Your task to perform on an android device: View the shopping cart on walmart.com. Search for "macbook pro 15 inch" on walmart.com, select the first entry, add it to the cart, then select checkout. Image 0: 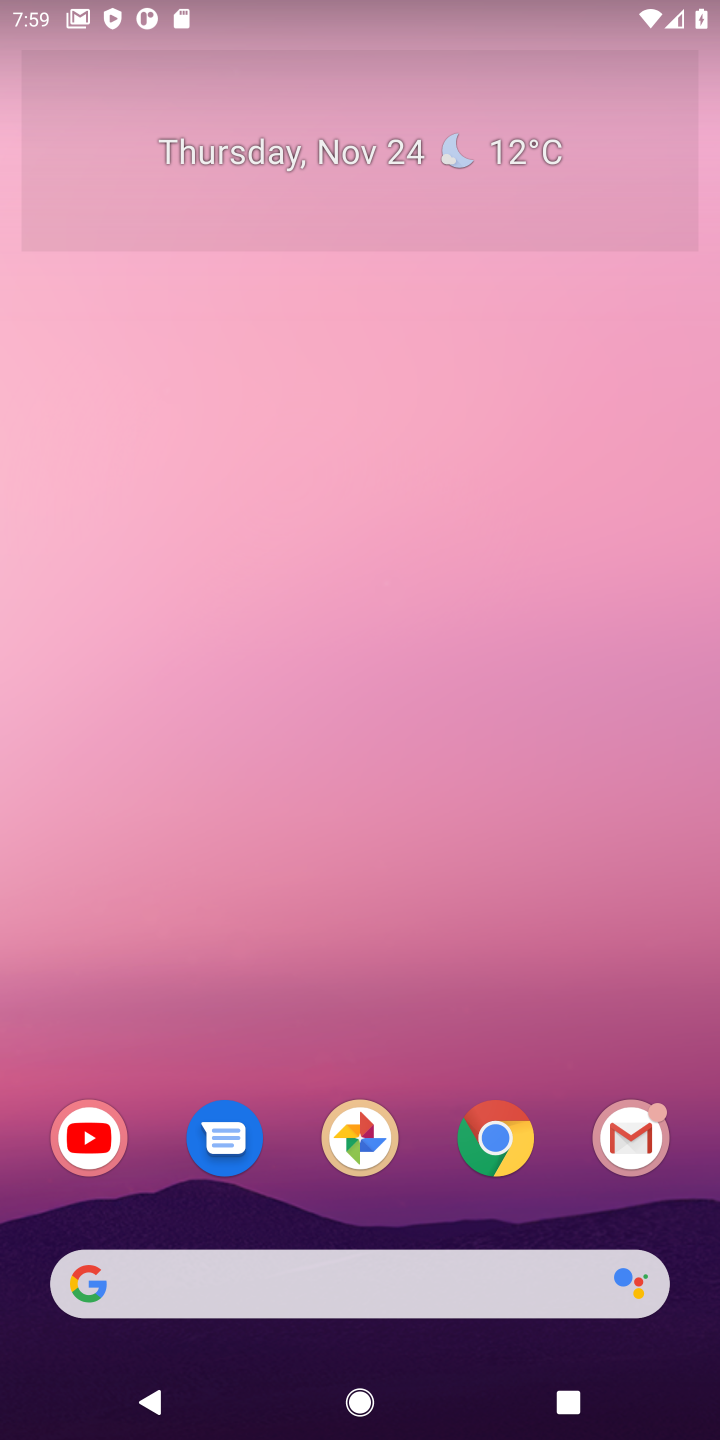
Step 0: click (489, 1139)
Your task to perform on an android device: View the shopping cart on walmart.com. Search for "macbook pro 15 inch" on walmart.com, select the first entry, add it to the cart, then select checkout. Image 1: 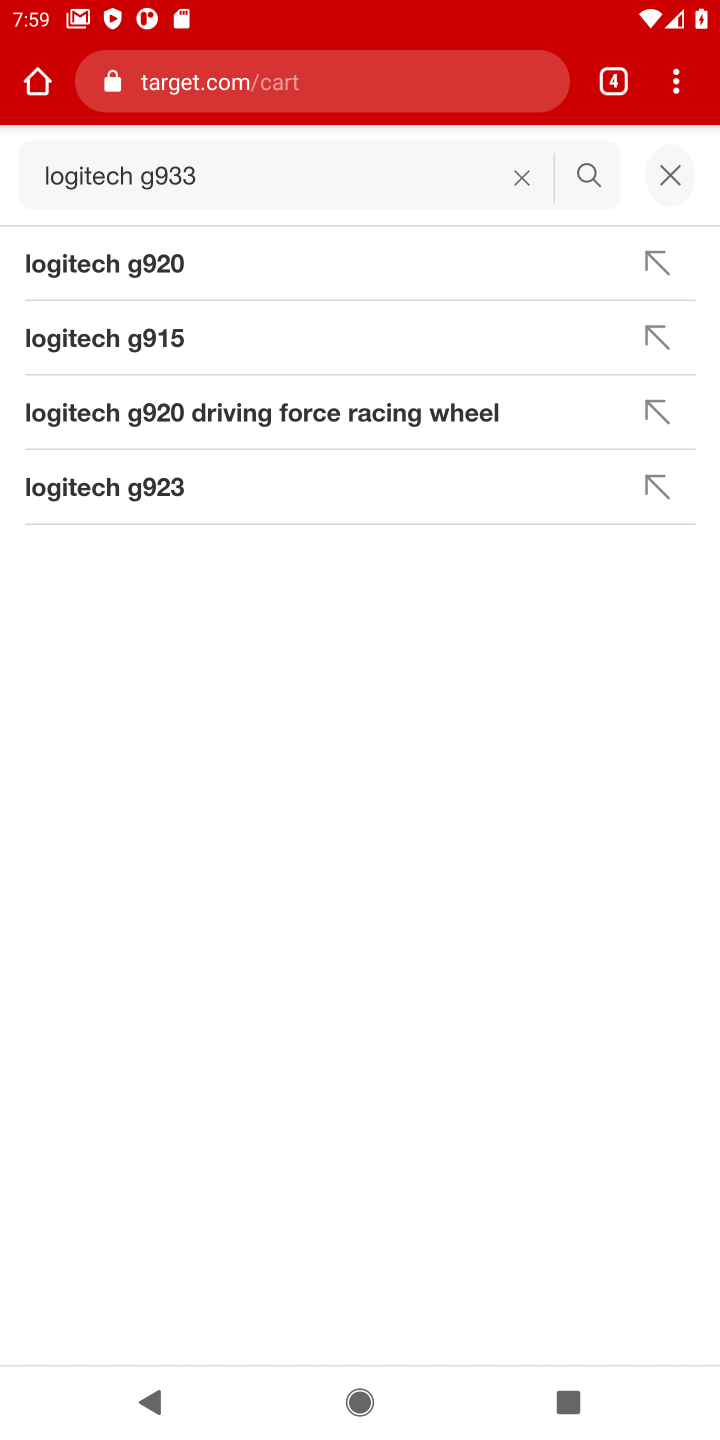
Step 1: click (518, 178)
Your task to perform on an android device: View the shopping cart on walmart.com. Search for "macbook pro 15 inch" on walmart.com, select the first entry, add it to the cart, then select checkout. Image 2: 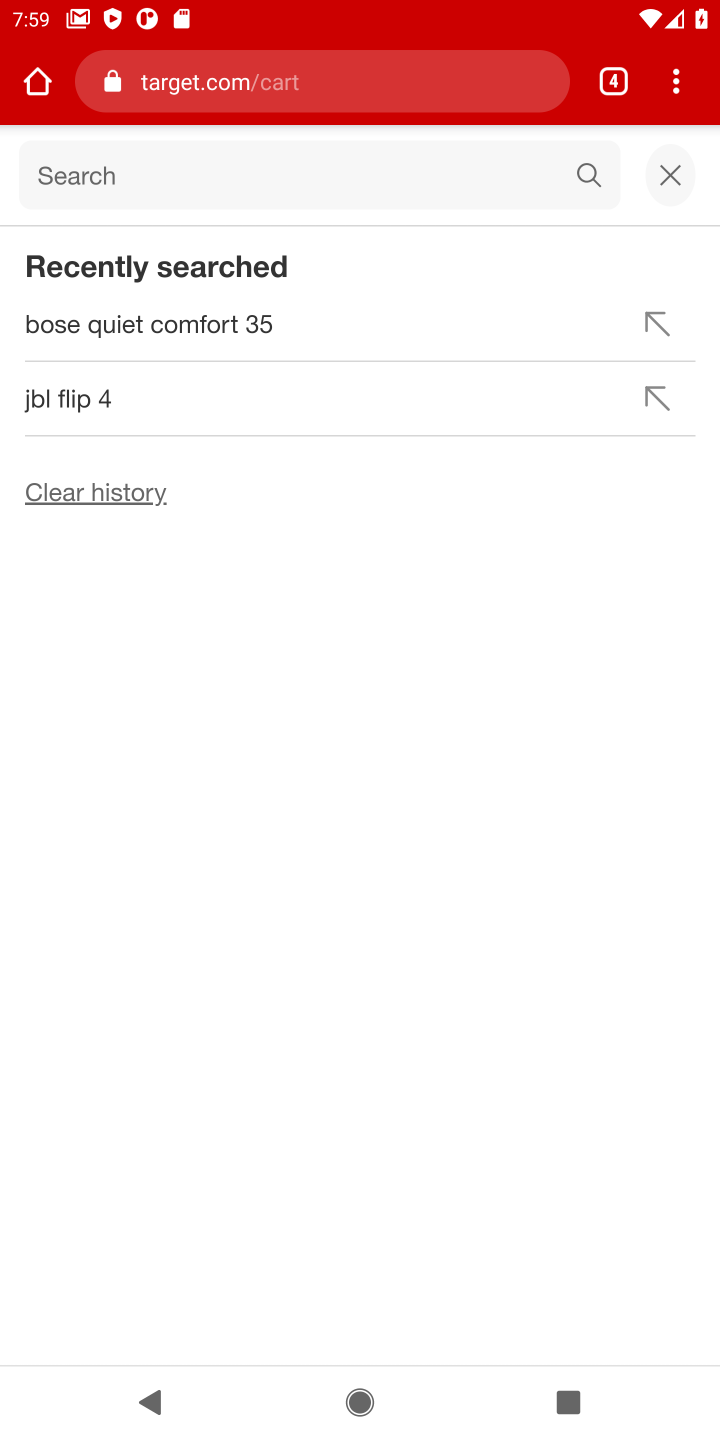
Step 2: click (611, 74)
Your task to perform on an android device: View the shopping cart on walmart.com. Search for "macbook pro 15 inch" on walmart.com, select the first entry, add it to the cart, then select checkout. Image 3: 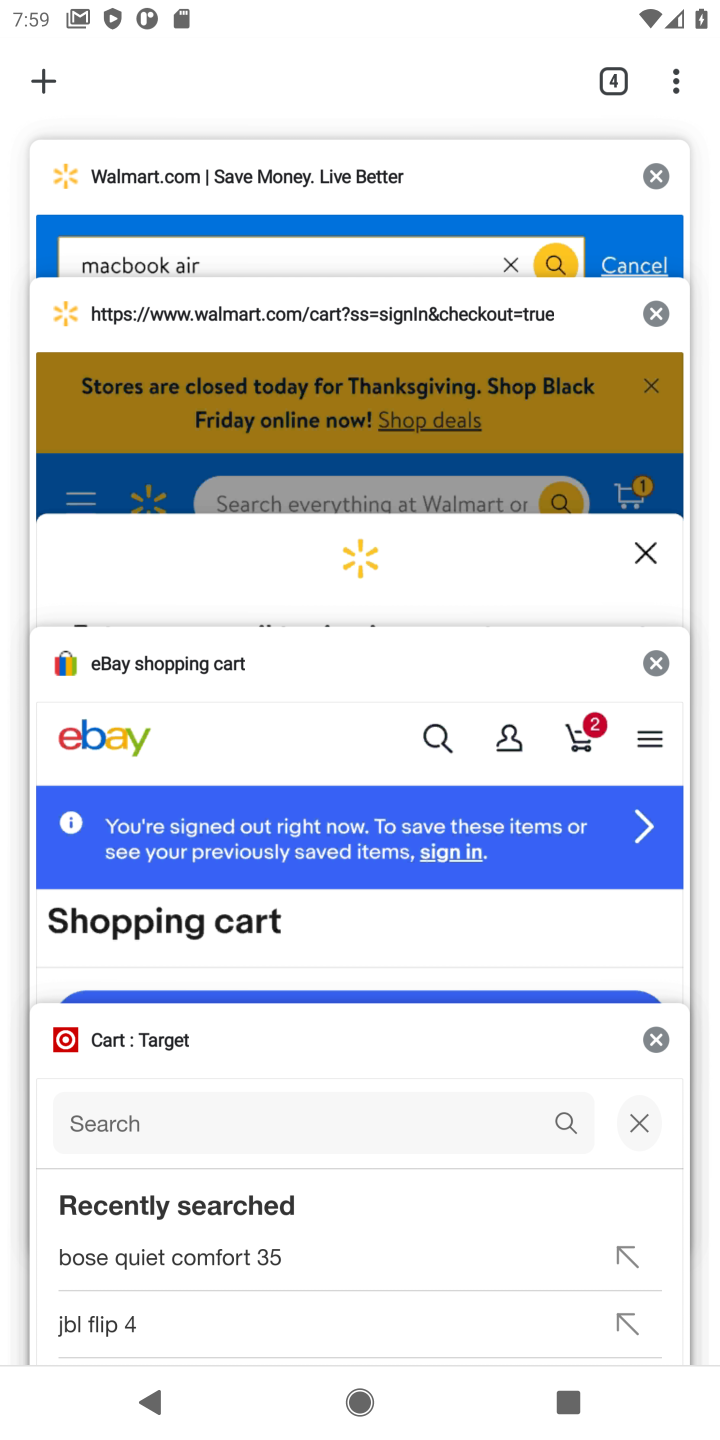
Step 3: click (305, 366)
Your task to perform on an android device: View the shopping cart on walmart.com. Search for "macbook pro 15 inch" on walmart.com, select the first entry, add it to the cart, then select checkout. Image 4: 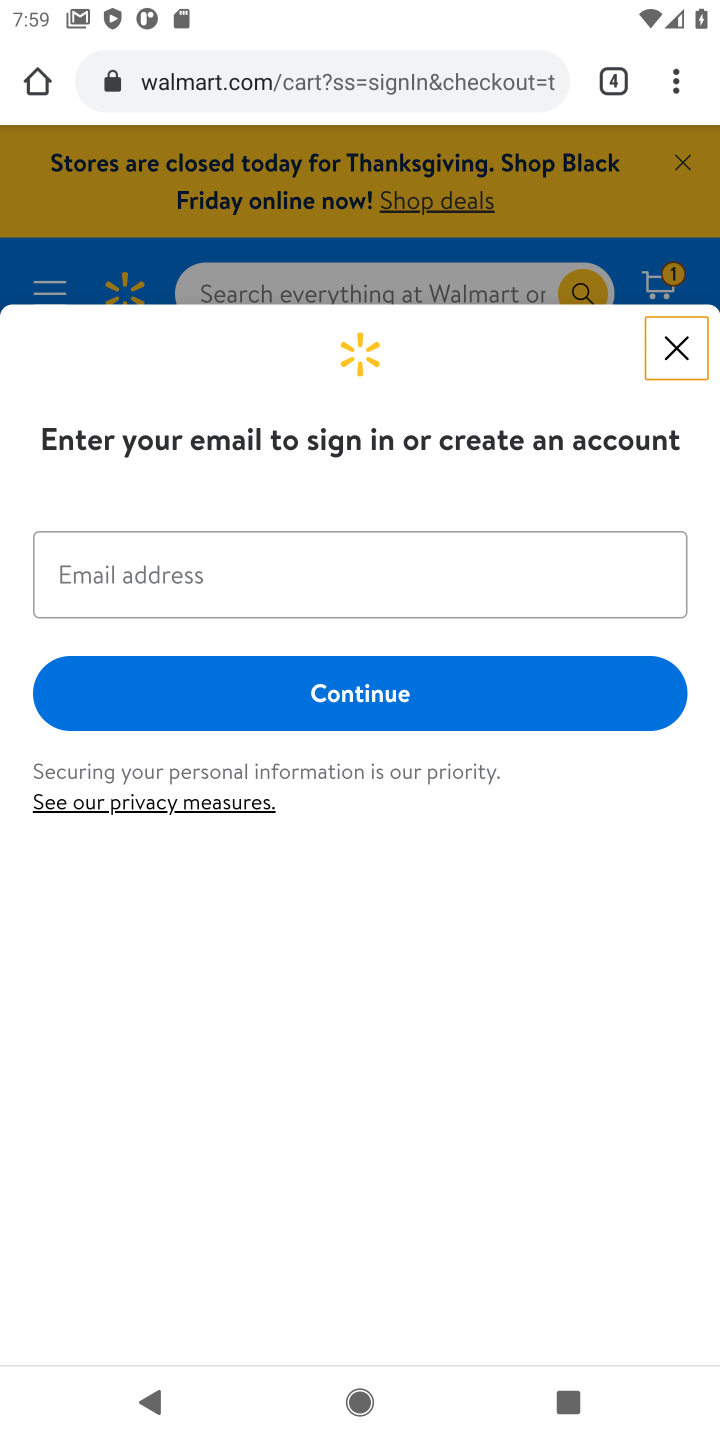
Step 4: click (668, 344)
Your task to perform on an android device: View the shopping cart on walmart.com. Search for "macbook pro 15 inch" on walmart.com, select the first entry, add it to the cart, then select checkout. Image 5: 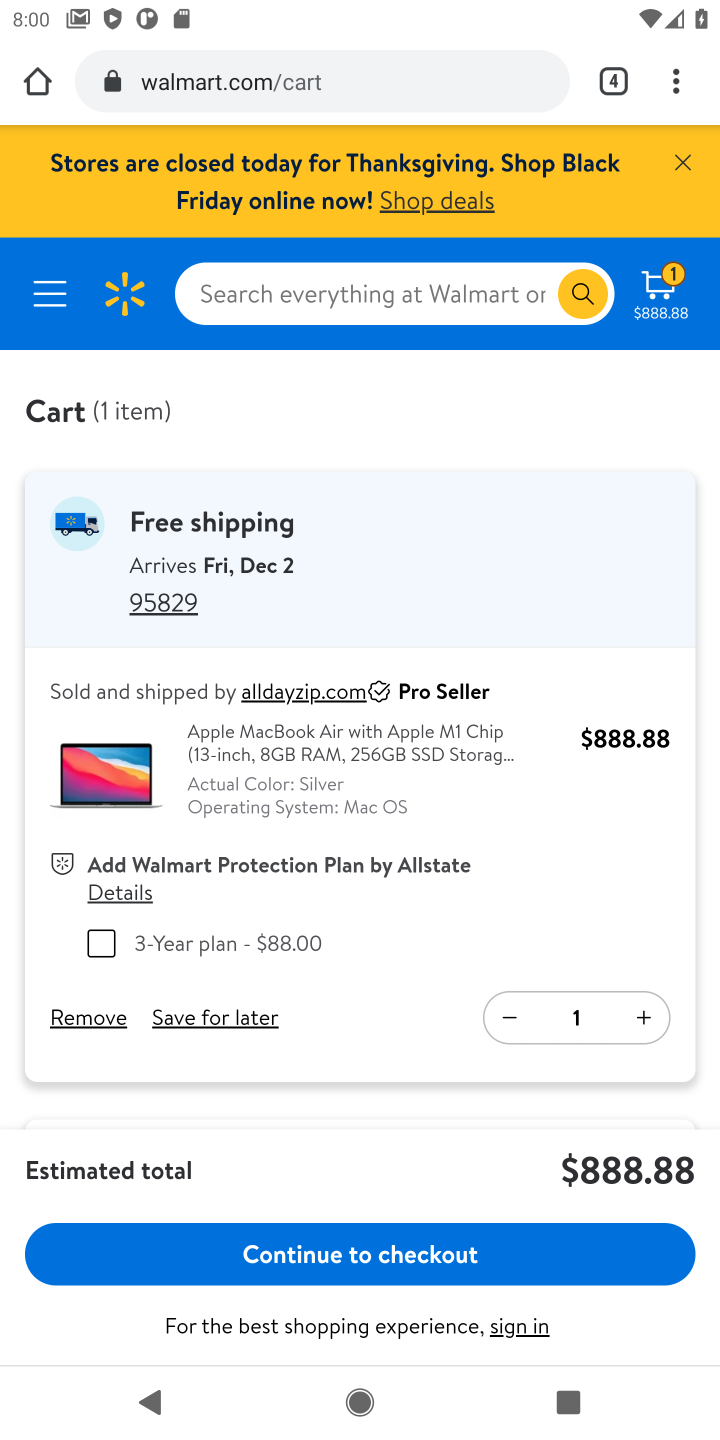
Step 5: click (642, 294)
Your task to perform on an android device: View the shopping cart on walmart.com. Search for "macbook pro 15 inch" on walmart.com, select the first entry, add it to the cart, then select checkout. Image 6: 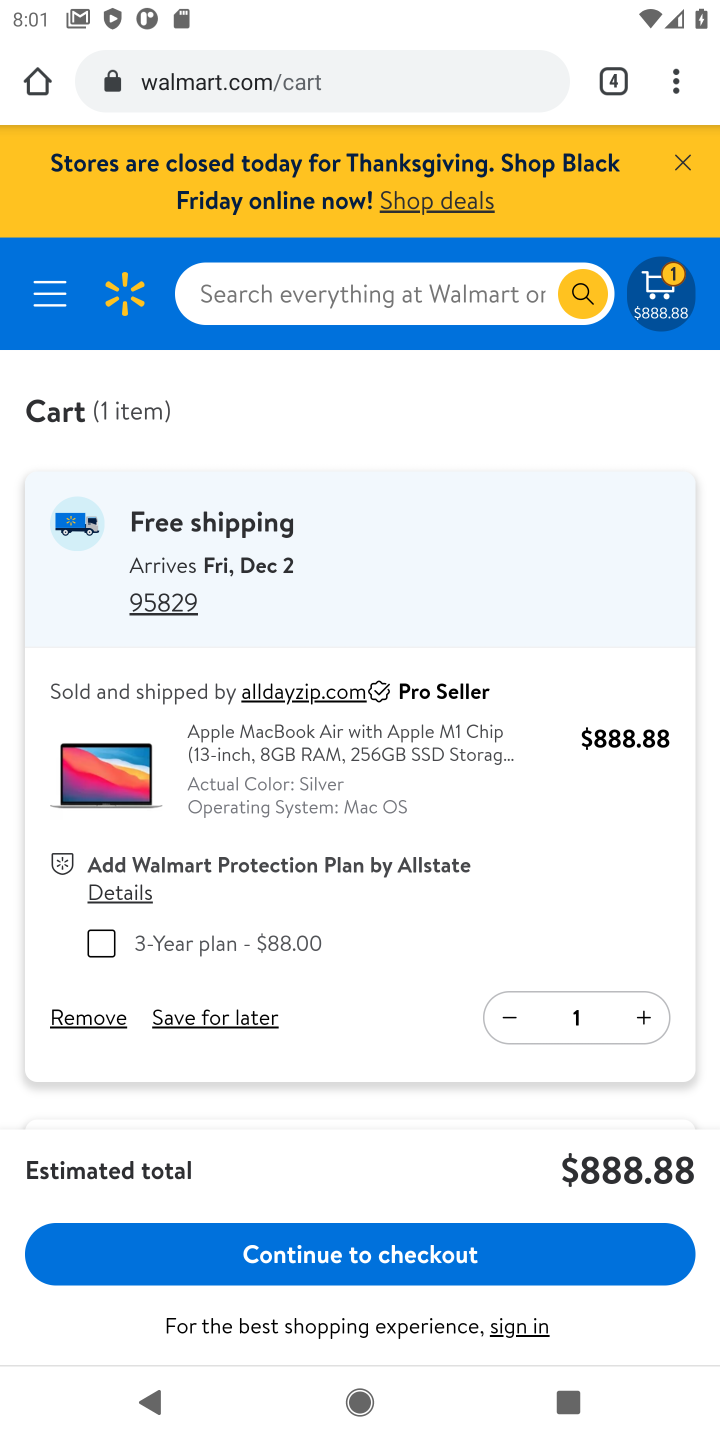
Step 6: click (403, 289)
Your task to perform on an android device: View the shopping cart on walmart.com. Search for "macbook pro 15 inch" on walmart.com, select the first entry, add it to the cart, then select checkout. Image 7: 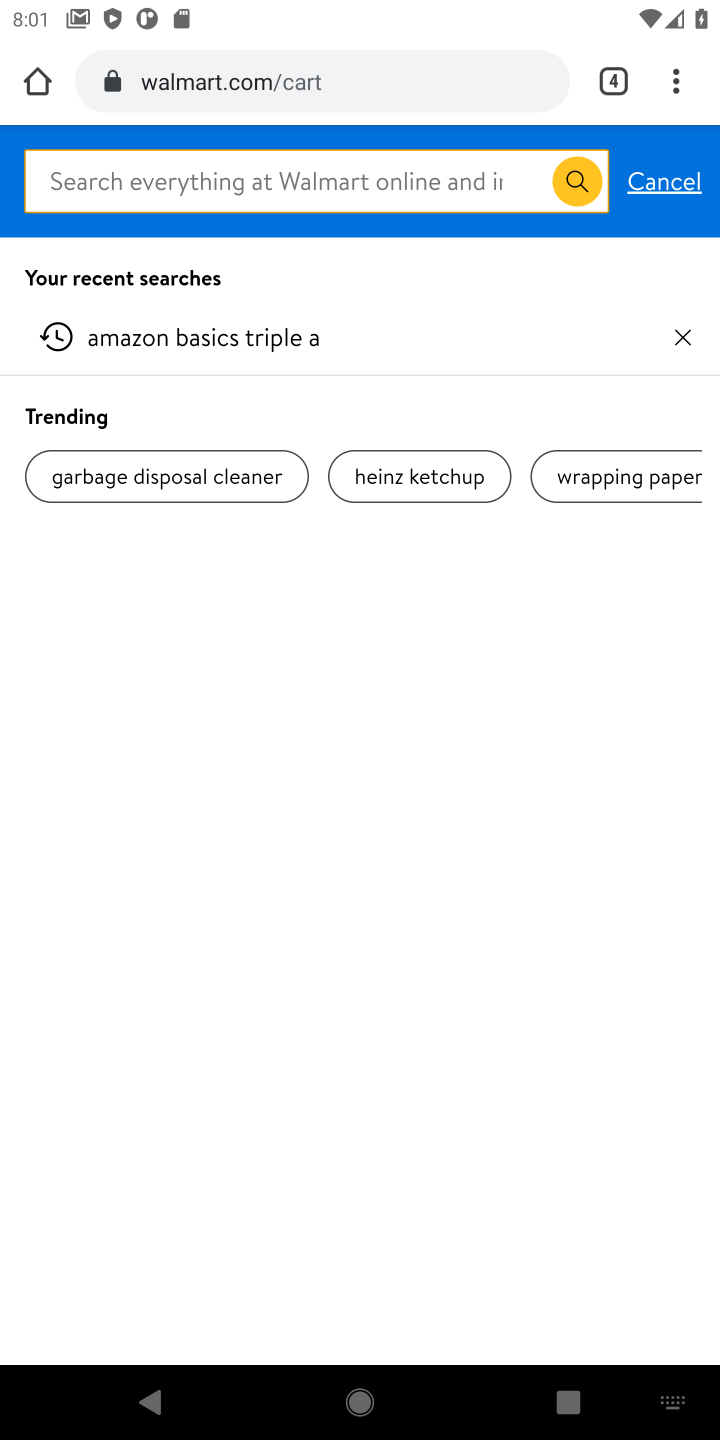
Step 7: click (186, 179)
Your task to perform on an android device: View the shopping cart on walmart.com. Search for "macbook pro 15 inch" on walmart.com, select the first entry, add it to the cart, then select checkout. Image 8: 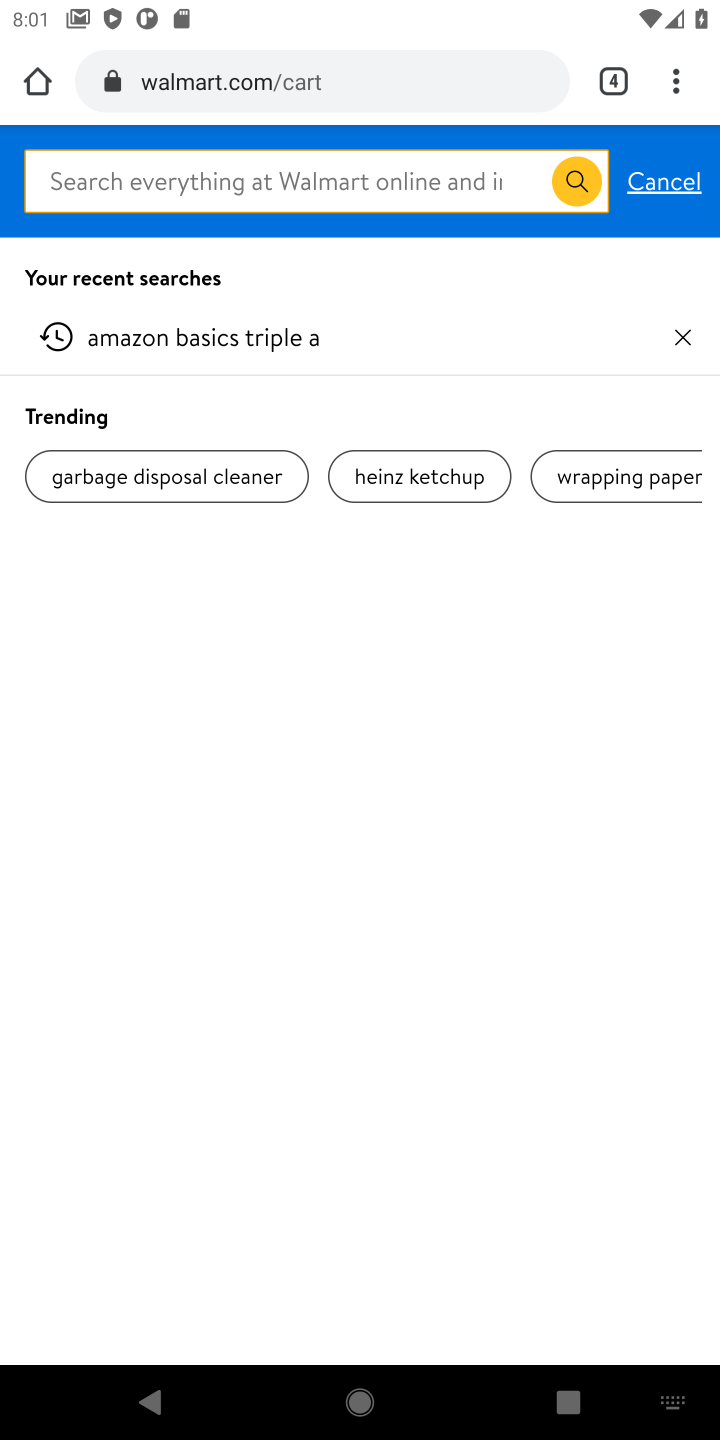
Step 8: type "macbook pro 15"
Your task to perform on an android device: View the shopping cart on walmart.com. Search for "macbook pro 15 inch" on walmart.com, select the first entry, add it to the cart, then select checkout. Image 9: 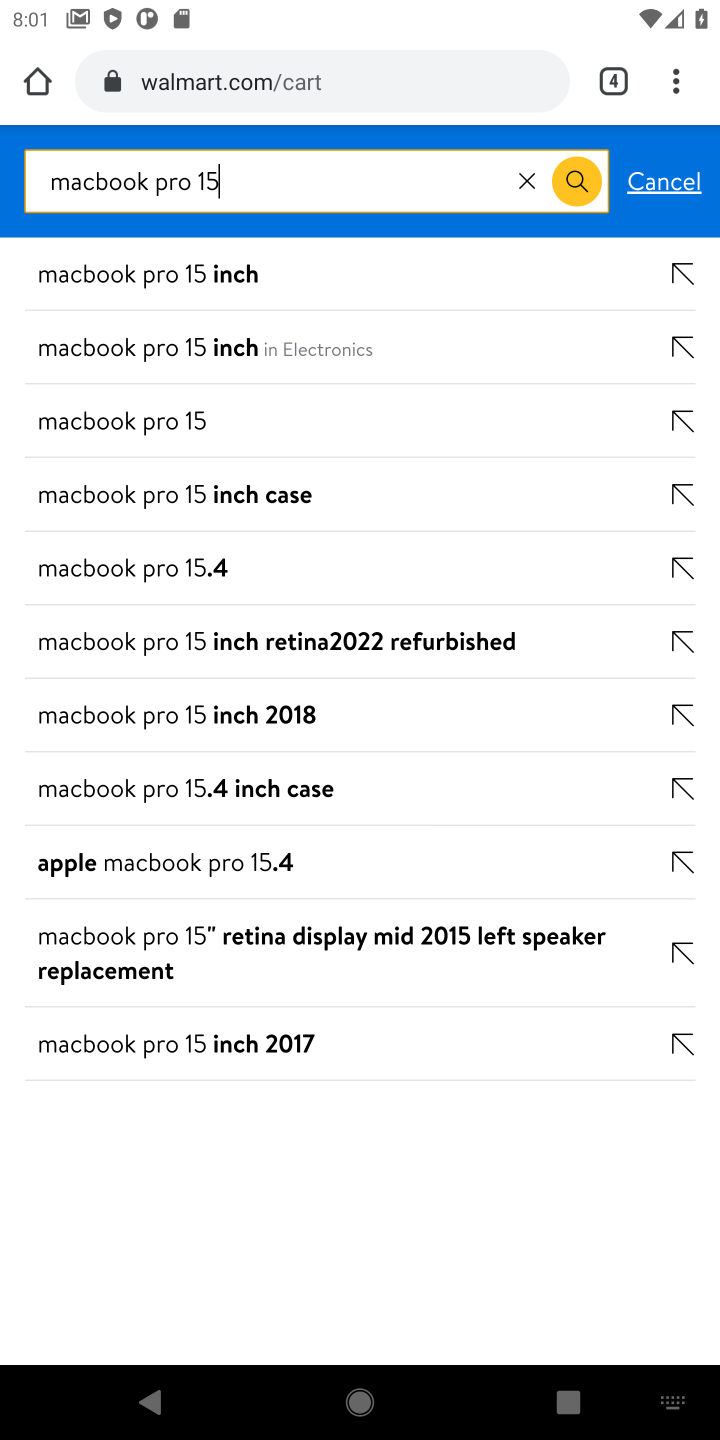
Step 9: click (230, 270)
Your task to perform on an android device: View the shopping cart on walmart.com. Search for "macbook pro 15 inch" on walmart.com, select the first entry, add it to the cart, then select checkout. Image 10: 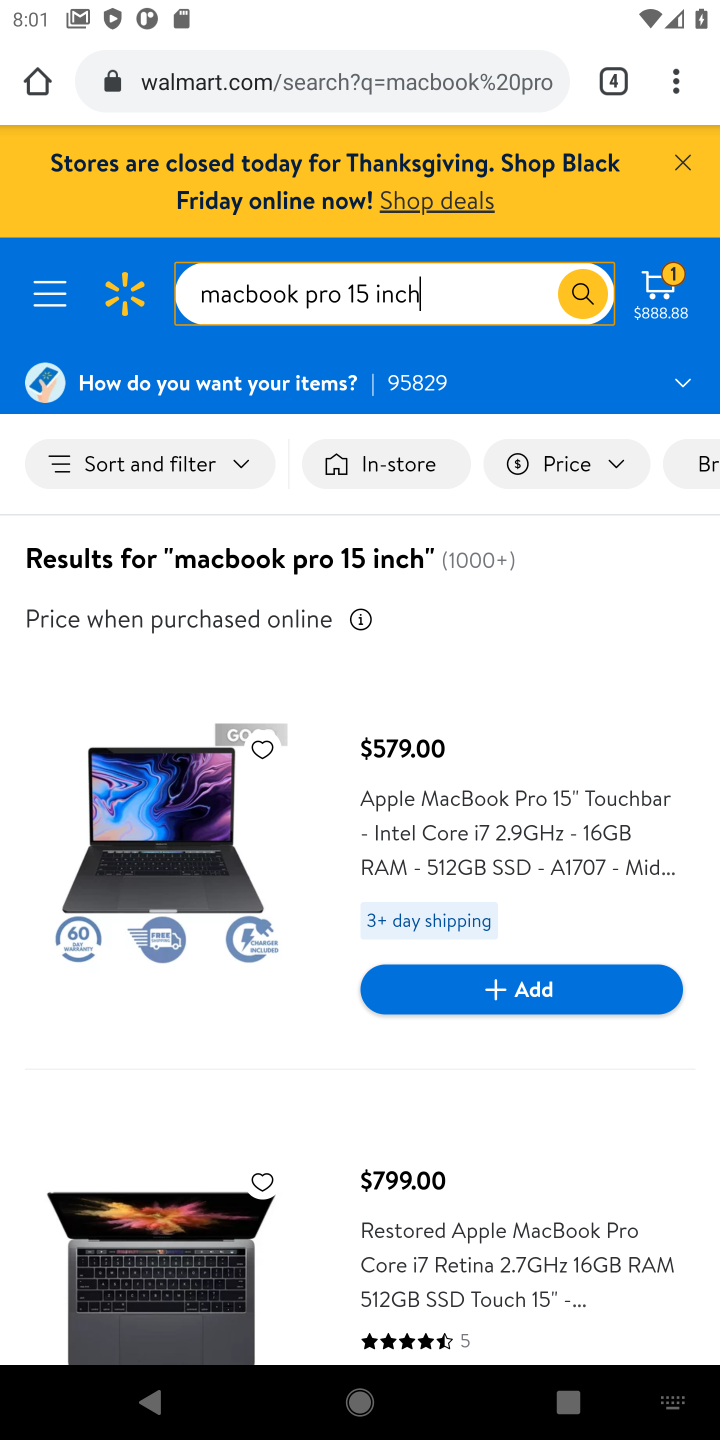
Step 10: click (466, 995)
Your task to perform on an android device: View the shopping cart on walmart.com. Search for "macbook pro 15 inch" on walmart.com, select the first entry, add it to the cart, then select checkout. Image 11: 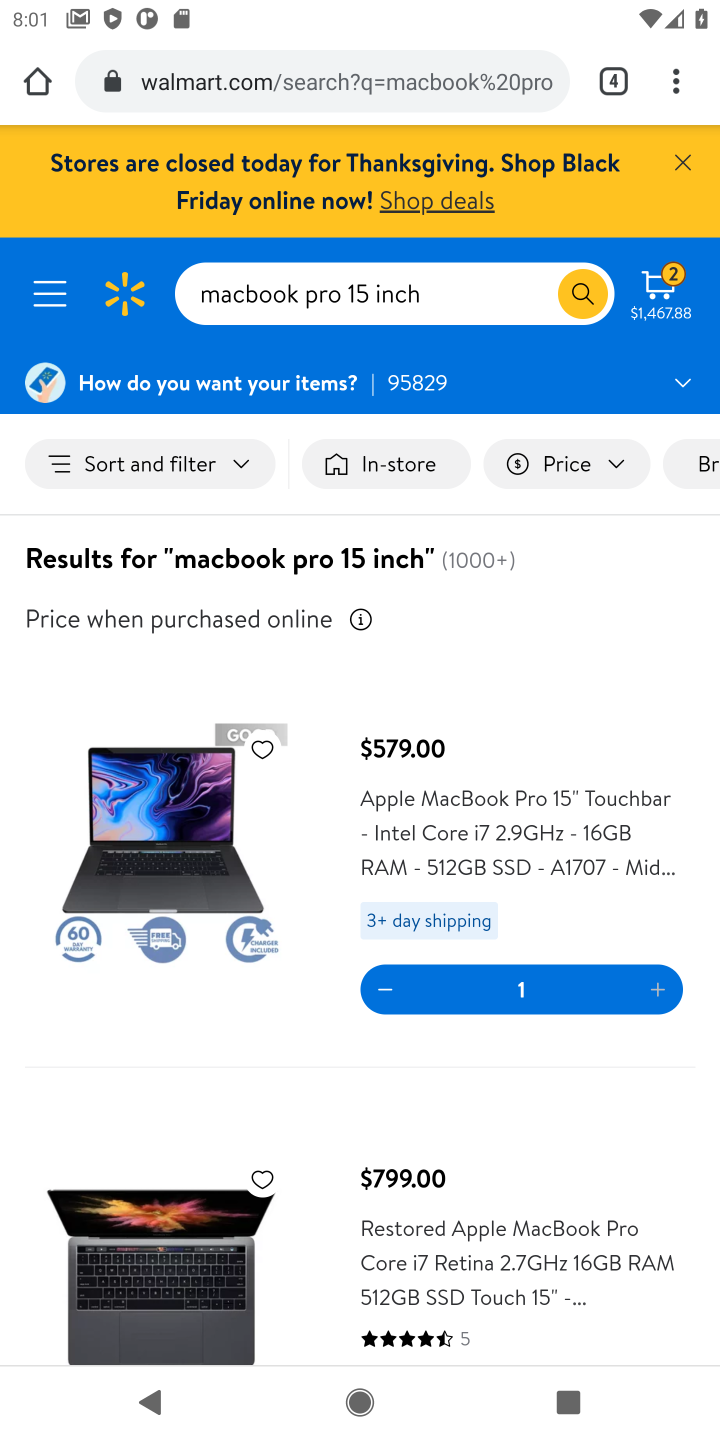
Step 11: click (437, 801)
Your task to perform on an android device: View the shopping cart on walmart.com. Search for "macbook pro 15 inch" on walmart.com, select the first entry, add it to the cart, then select checkout. Image 12: 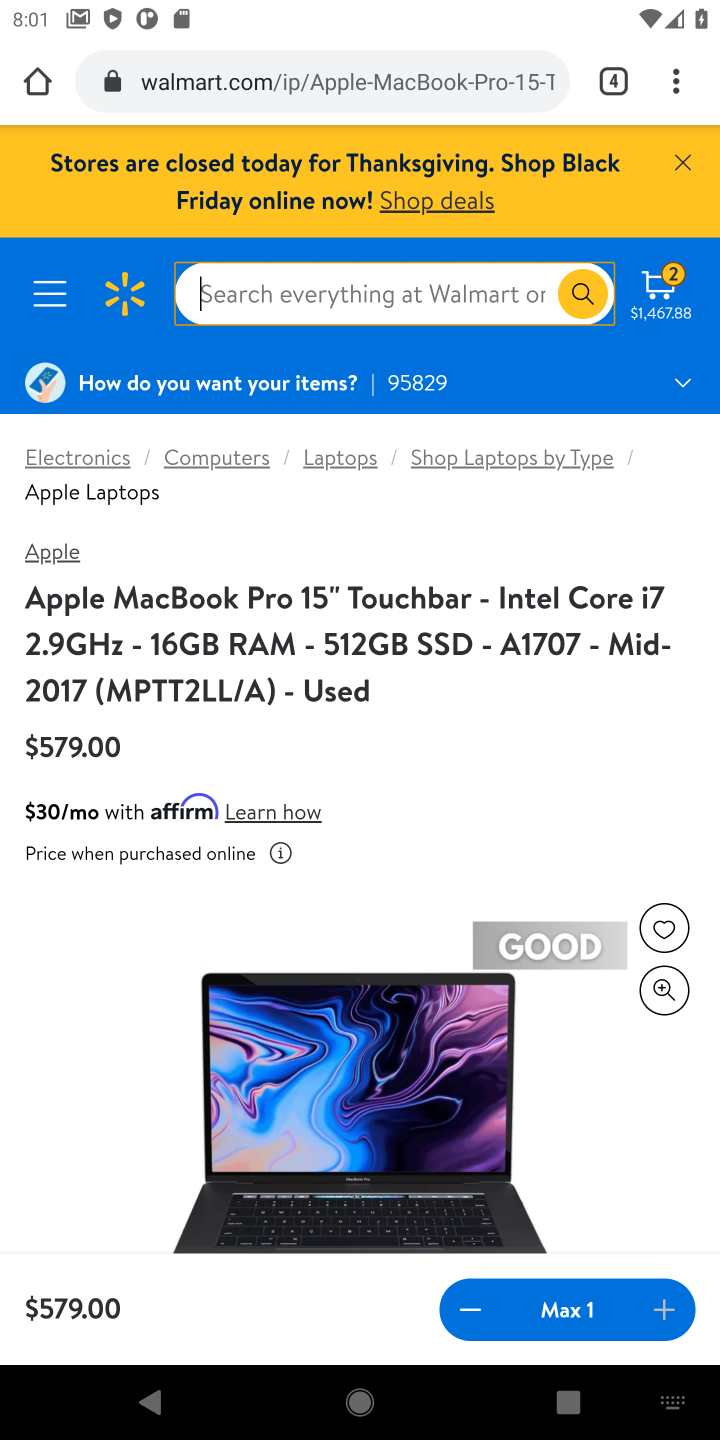
Step 12: drag from (502, 1098) to (575, 196)
Your task to perform on an android device: View the shopping cart on walmart.com. Search for "macbook pro 15 inch" on walmart.com, select the first entry, add it to the cart, then select checkout. Image 13: 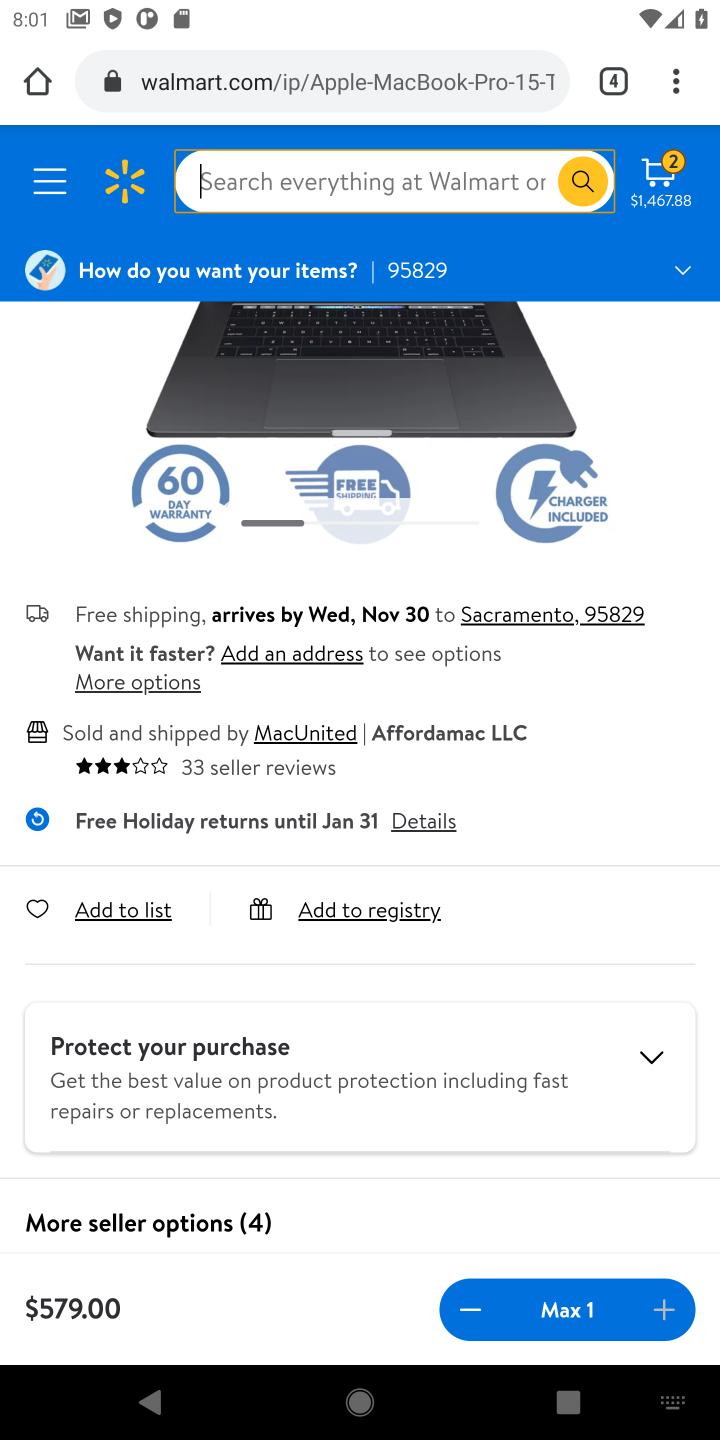
Step 13: drag from (377, 1060) to (386, 387)
Your task to perform on an android device: View the shopping cart on walmart.com. Search for "macbook pro 15 inch" on walmart.com, select the first entry, add it to the cart, then select checkout. Image 14: 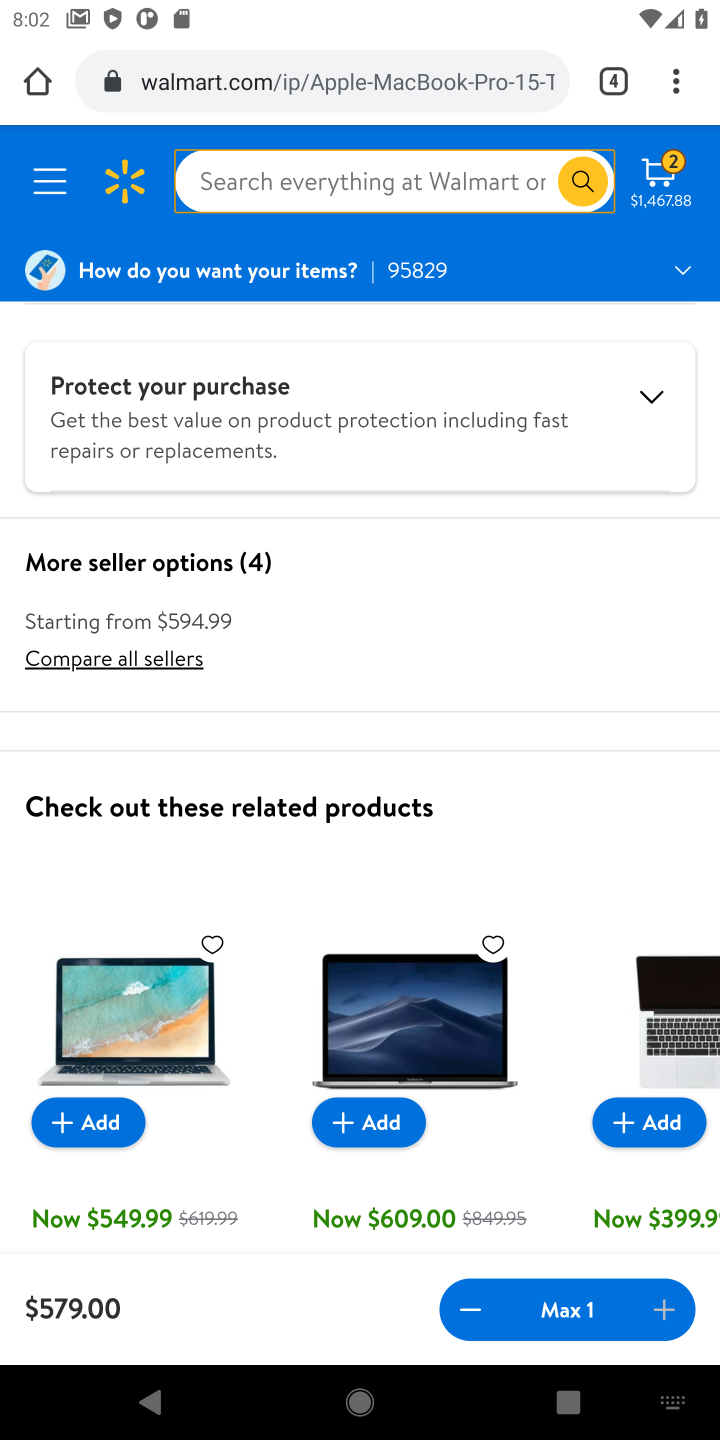
Step 14: drag from (304, 1080) to (350, 678)
Your task to perform on an android device: View the shopping cart on walmart.com. Search for "macbook pro 15 inch" on walmart.com, select the first entry, add it to the cart, then select checkout. Image 15: 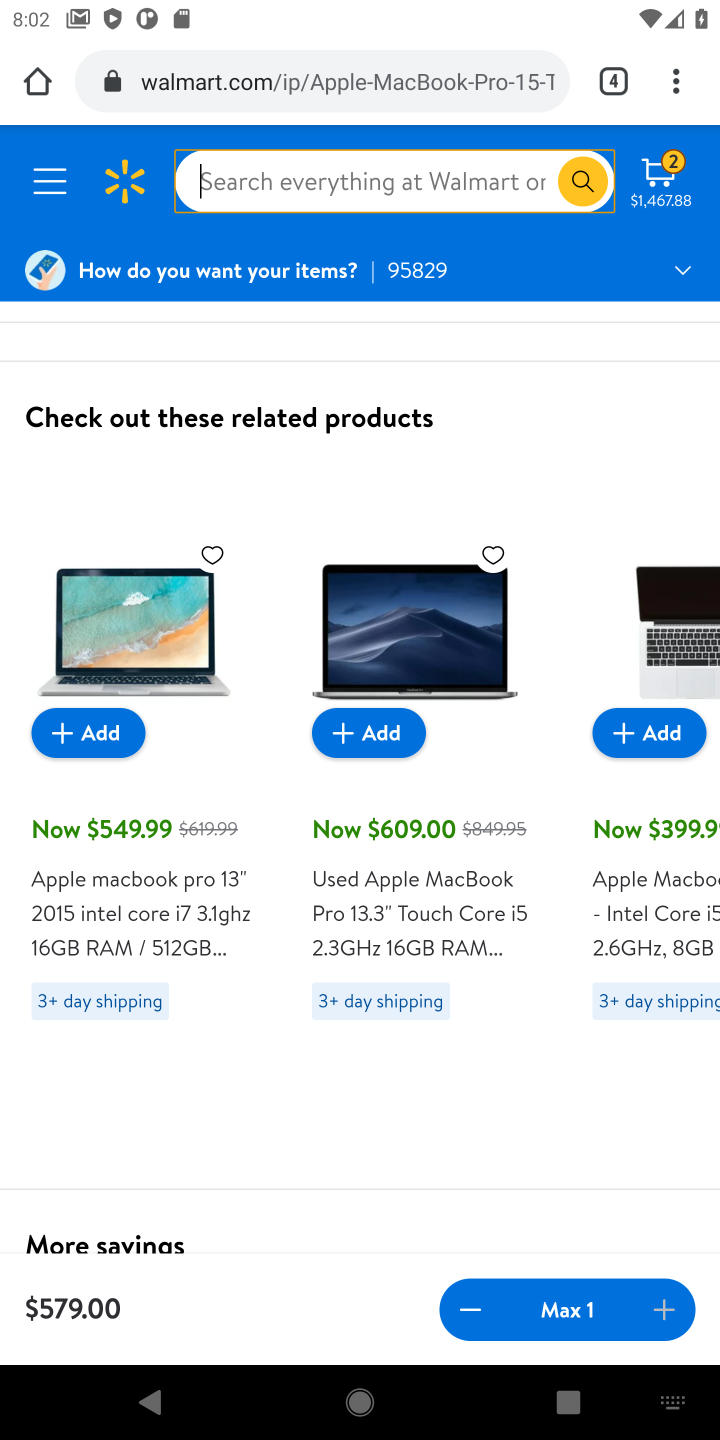
Step 15: drag from (134, 917) to (205, 318)
Your task to perform on an android device: View the shopping cart on walmart.com. Search for "macbook pro 15 inch" on walmart.com, select the first entry, add it to the cart, then select checkout. Image 16: 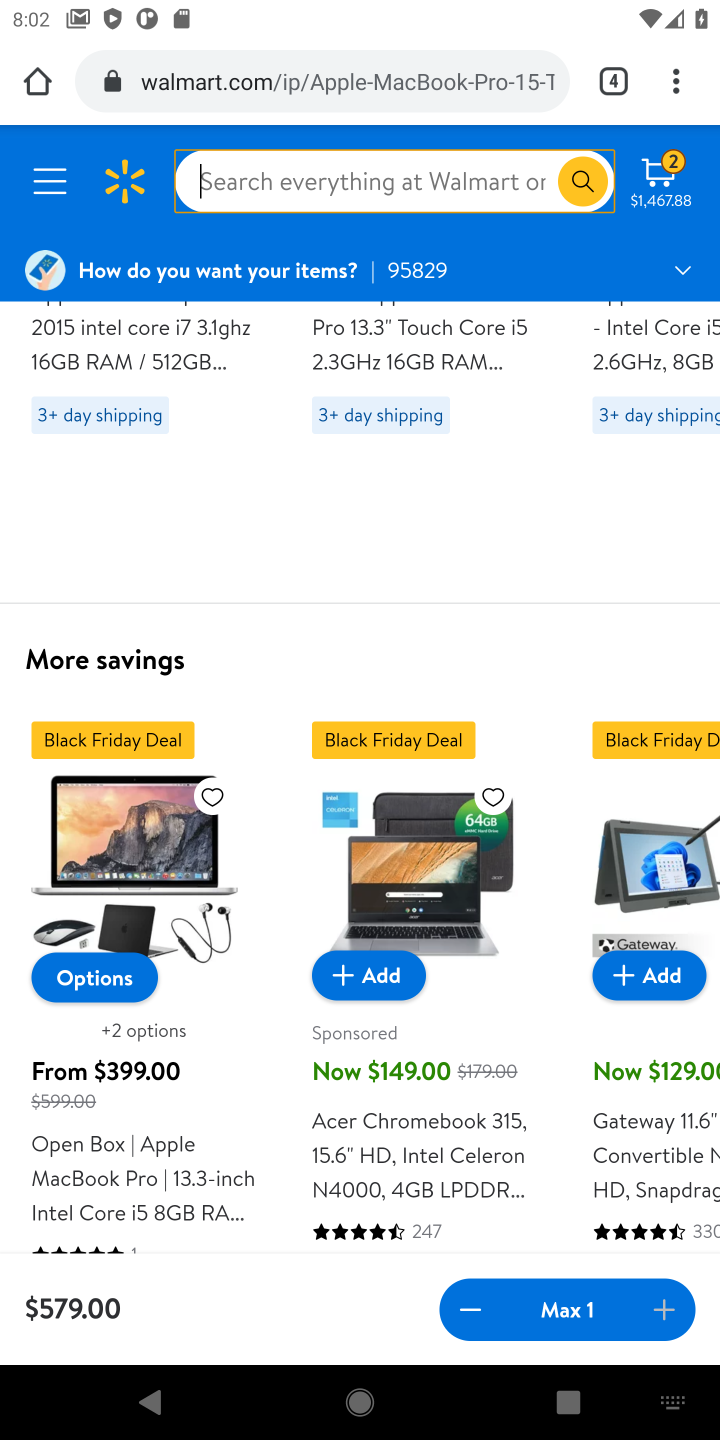
Step 16: click (675, 155)
Your task to perform on an android device: View the shopping cart on walmart.com. Search for "macbook pro 15 inch" on walmart.com, select the first entry, add it to the cart, then select checkout. Image 17: 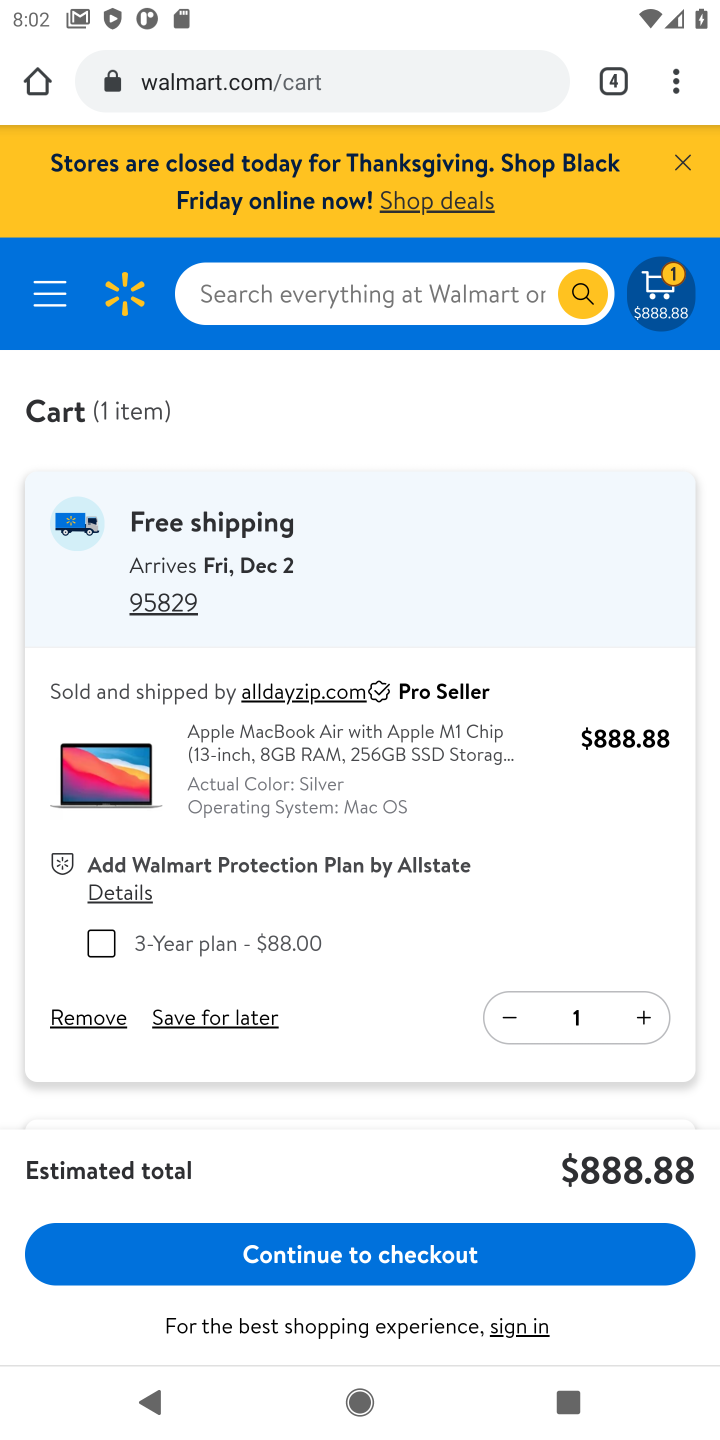
Step 17: click (363, 1251)
Your task to perform on an android device: View the shopping cart on walmart.com. Search for "macbook pro 15 inch" on walmart.com, select the first entry, add it to the cart, then select checkout. Image 18: 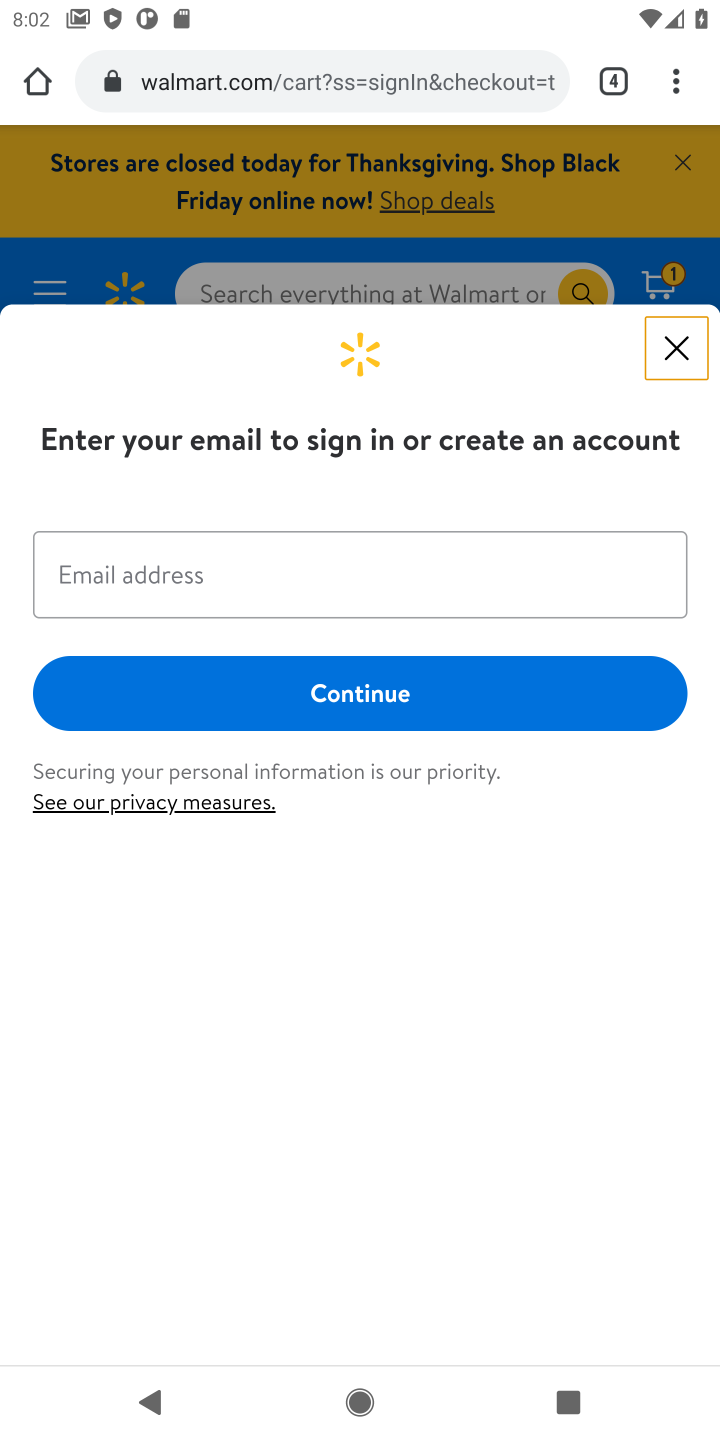
Step 18: click (670, 356)
Your task to perform on an android device: View the shopping cart on walmart.com. Search for "macbook pro 15 inch" on walmart.com, select the first entry, add it to the cart, then select checkout. Image 19: 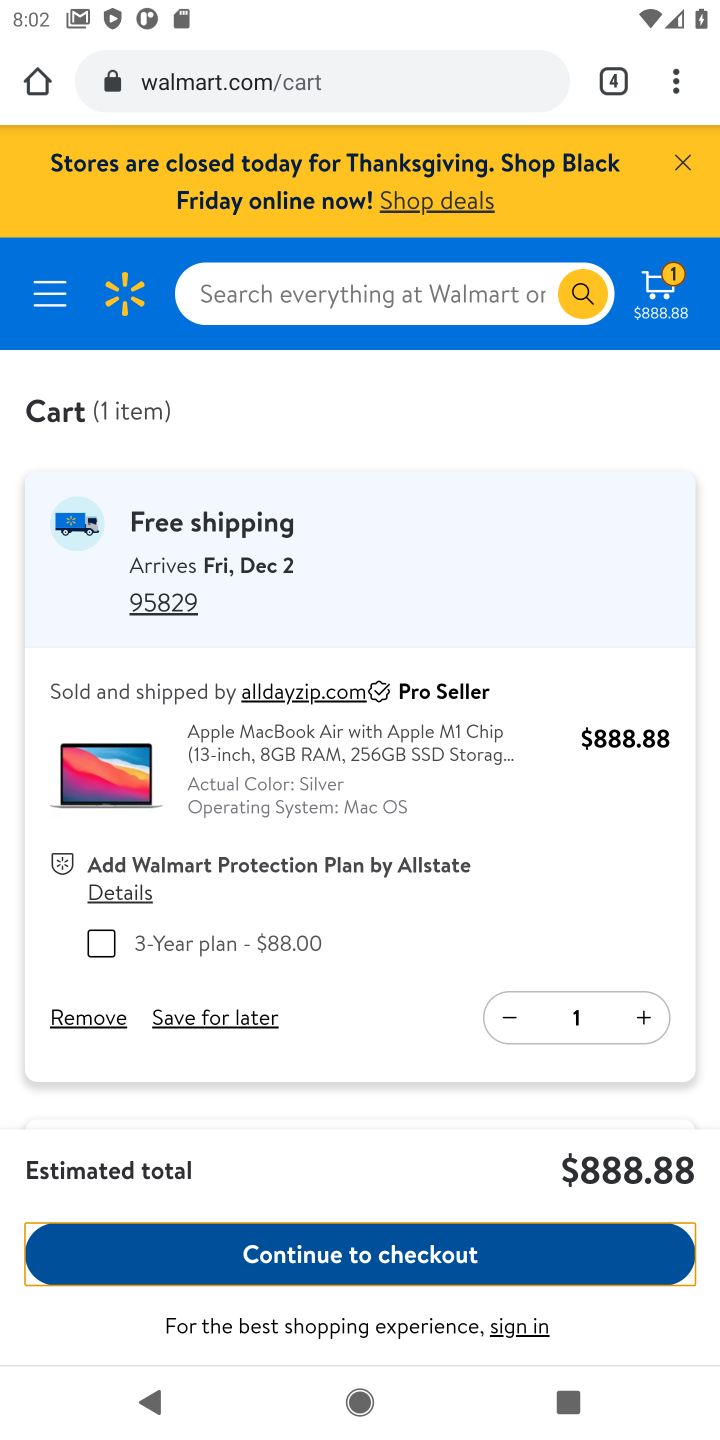
Step 19: click (243, 1245)
Your task to perform on an android device: View the shopping cart on walmart.com. Search for "macbook pro 15 inch" on walmart.com, select the first entry, add it to the cart, then select checkout. Image 20: 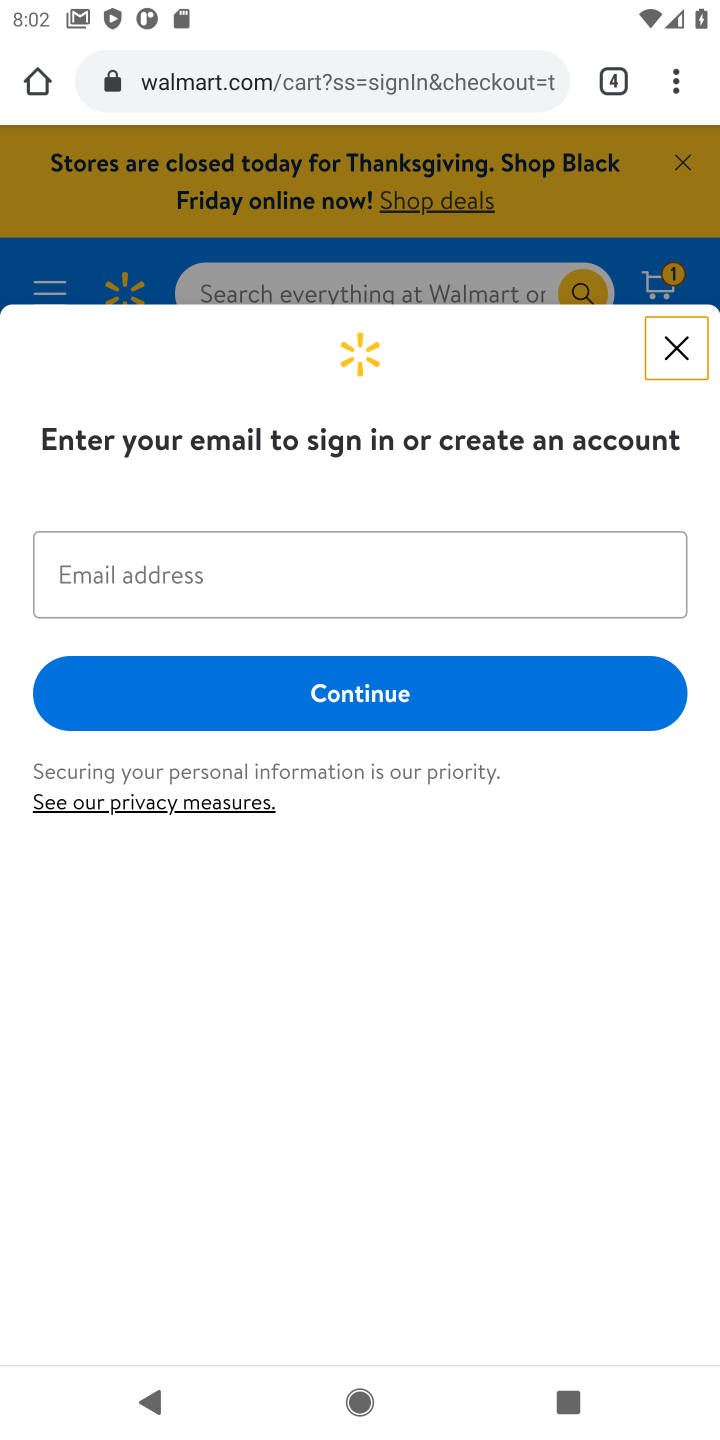
Step 20: task complete